Your task to perform on an android device: Open Chrome and go to the settings page Image 0: 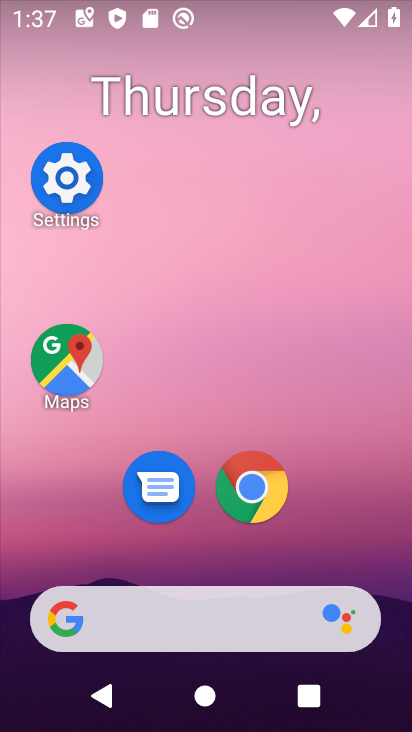
Step 0: click (275, 491)
Your task to perform on an android device: Open Chrome and go to the settings page Image 1: 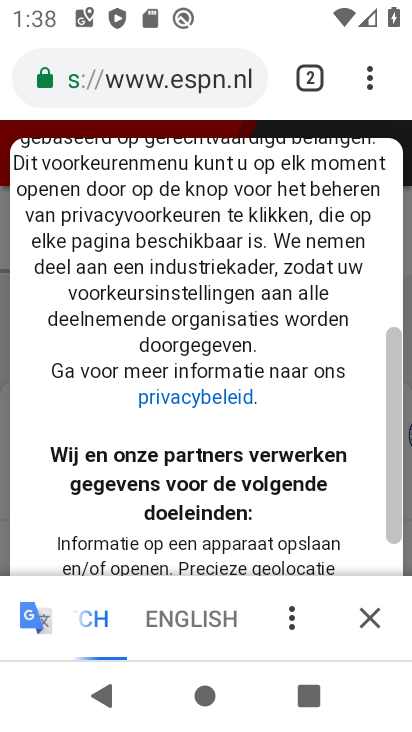
Step 1: click (376, 88)
Your task to perform on an android device: Open Chrome and go to the settings page Image 2: 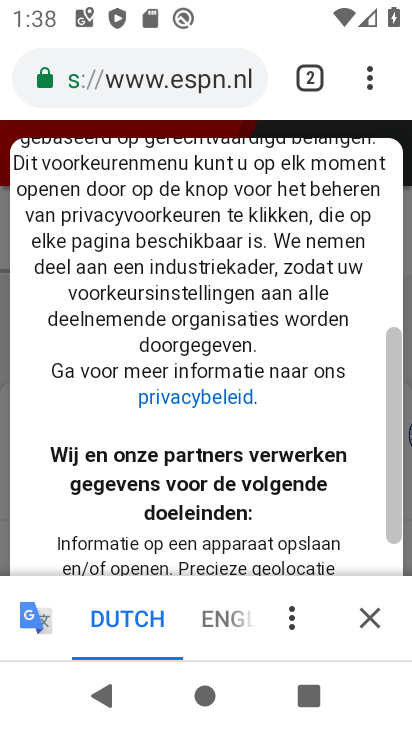
Step 2: click (374, 82)
Your task to perform on an android device: Open Chrome and go to the settings page Image 3: 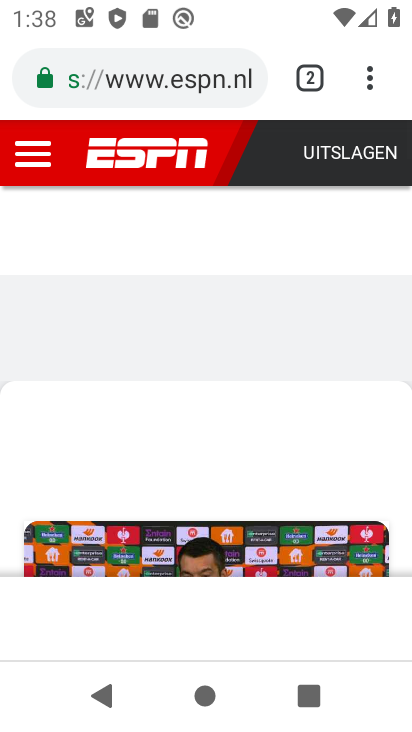
Step 3: click (354, 90)
Your task to perform on an android device: Open Chrome and go to the settings page Image 4: 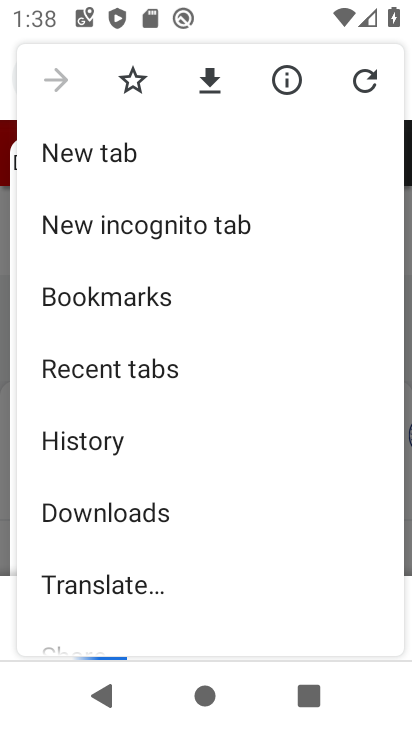
Step 4: drag from (216, 538) to (327, 117)
Your task to perform on an android device: Open Chrome and go to the settings page Image 5: 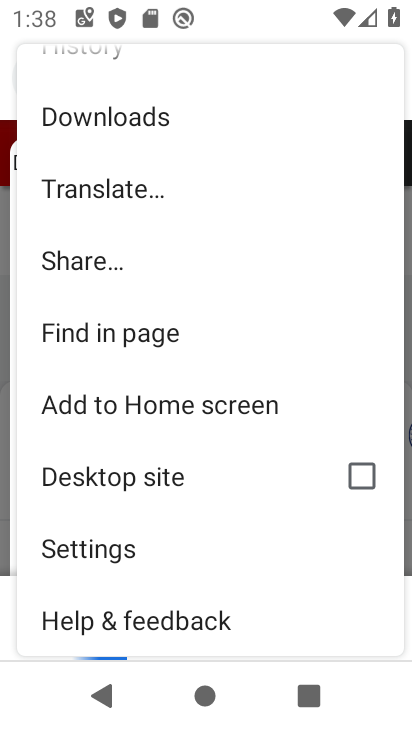
Step 5: click (90, 556)
Your task to perform on an android device: Open Chrome and go to the settings page Image 6: 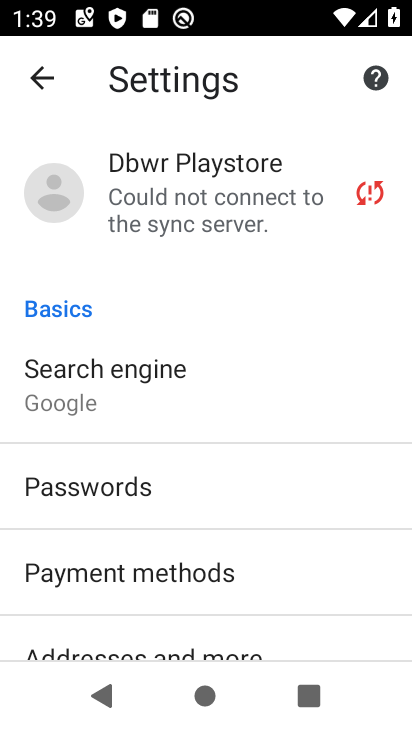
Step 6: task complete